Your task to perform on an android device: Open Google Chrome and open the bookmarks view Image 0: 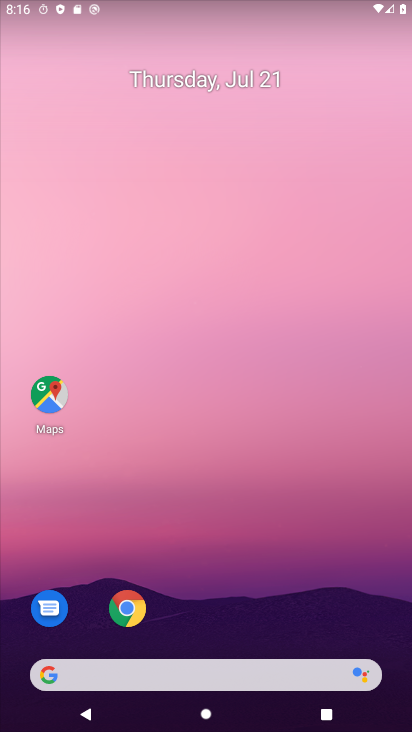
Step 0: click (118, 600)
Your task to perform on an android device: Open Google Chrome and open the bookmarks view Image 1: 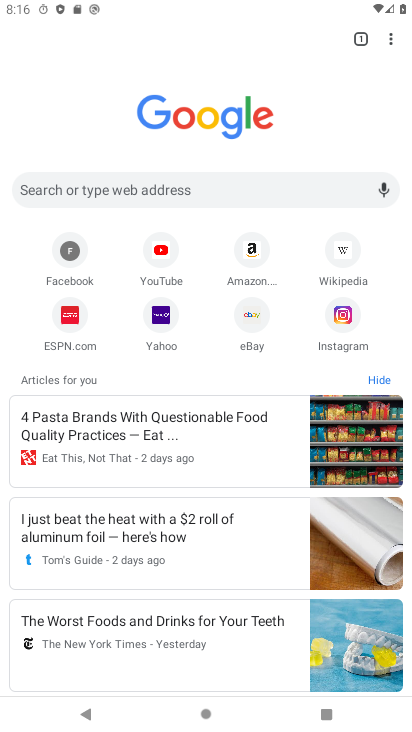
Step 1: task complete